Your task to perform on an android device: Go to network settings Image 0: 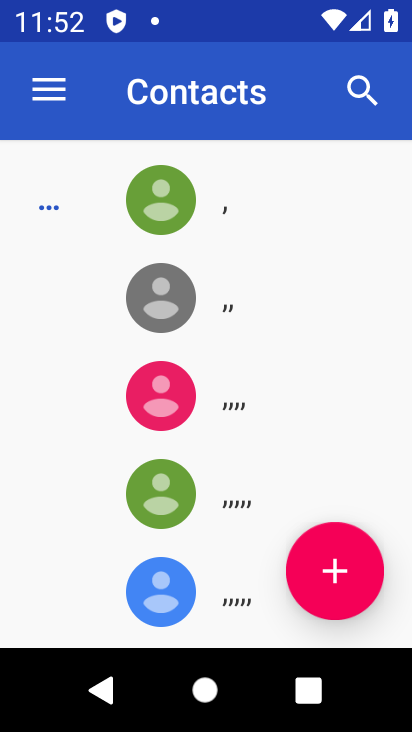
Step 0: press home button
Your task to perform on an android device: Go to network settings Image 1: 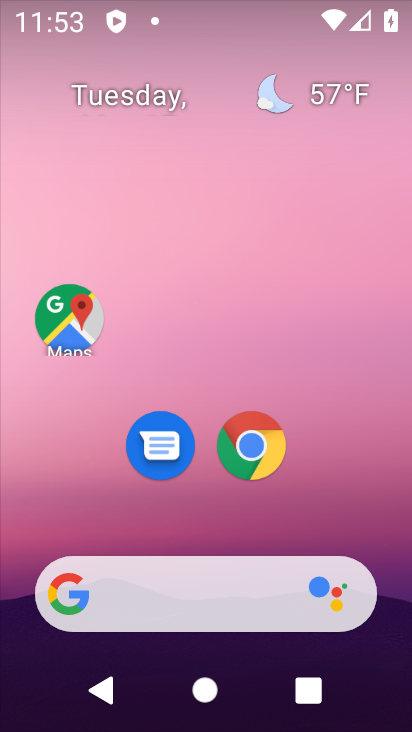
Step 1: drag from (355, 476) to (341, 112)
Your task to perform on an android device: Go to network settings Image 2: 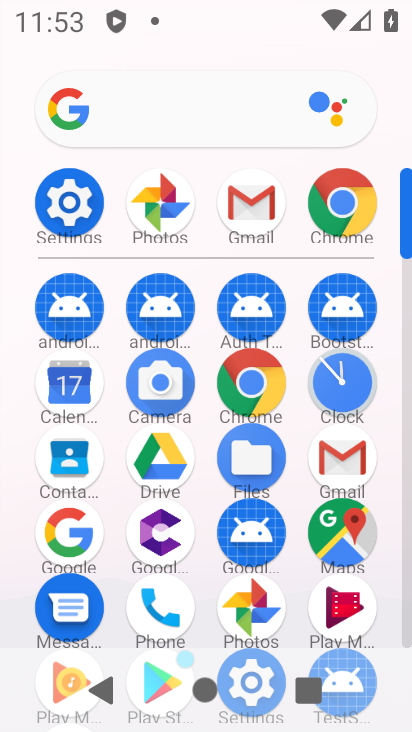
Step 2: click (48, 198)
Your task to perform on an android device: Go to network settings Image 3: 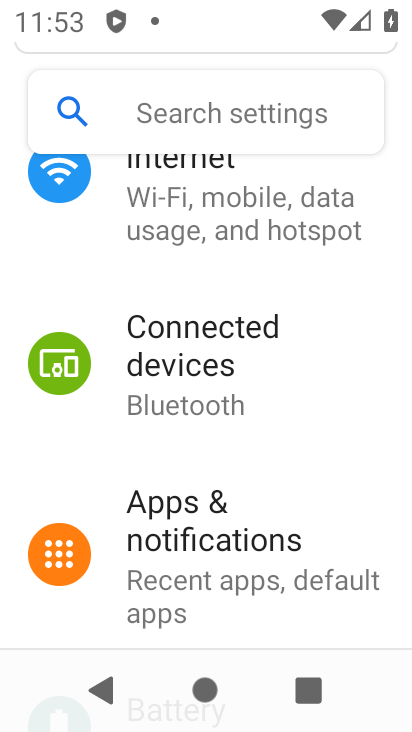
Step 3: drag from (344, 508) to (345, 296)
Your task to perform on an android device: Go to network settings Image 4: 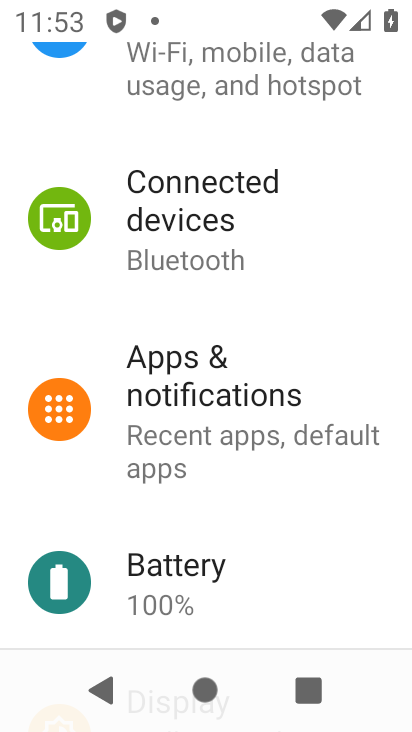
Step 4: drag from (343, 547) to (346, 285)
Your task to perform on an android device: Go to network settings Image 5: 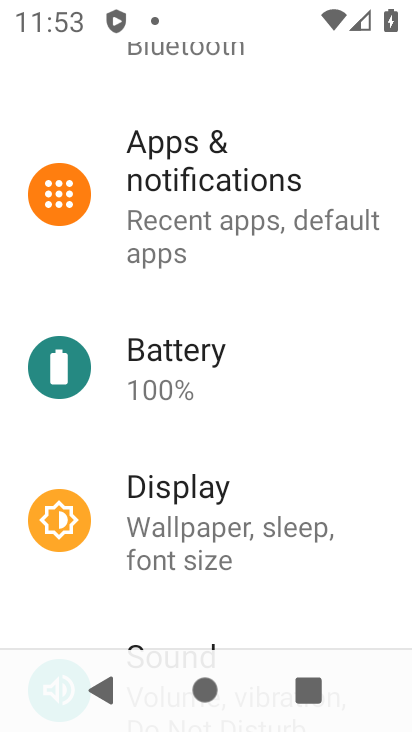
Step 5: drag from (335, 563) to (338, 284)
Your task to perform on an android device: Go to network settings Image 6: 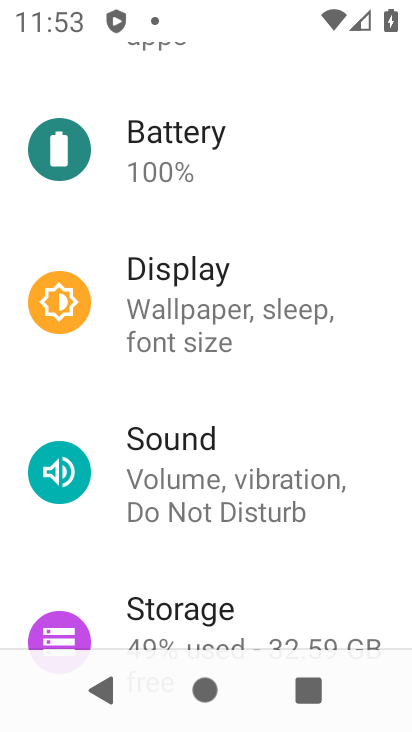
Step 6: drag from (336, 199) to (307, 393)
Your task to perform on an android device: Go to network settings Image 7: 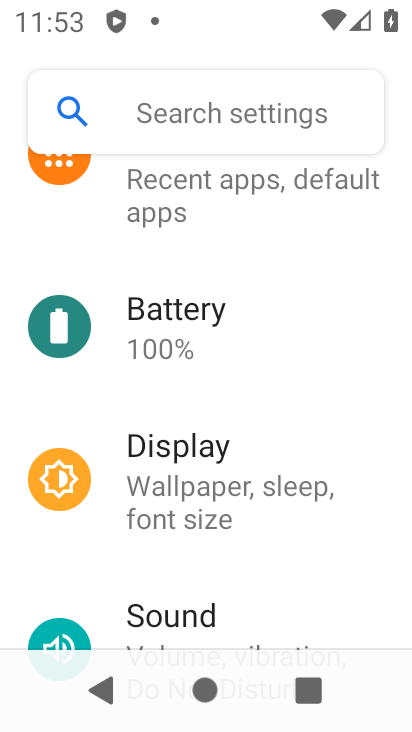
Step 7: drag from (323, 278) to (319, 531)
Your task to perform on an android device: Go to network settings Image 8: 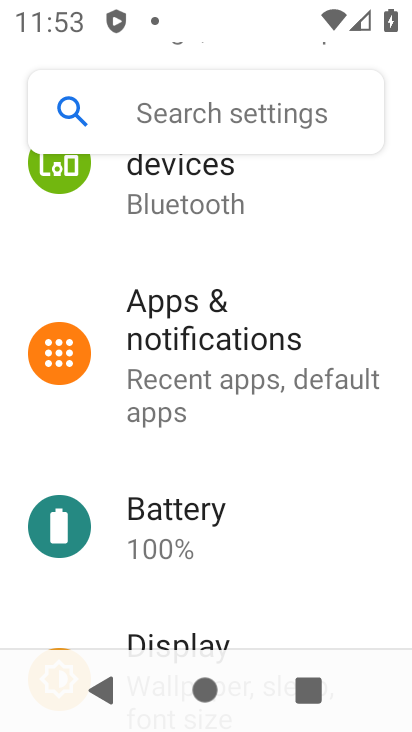
Step 8: drag from (320, 254) to (290, 501)
Your task to perform on an android device: Go to network settings Image 9: 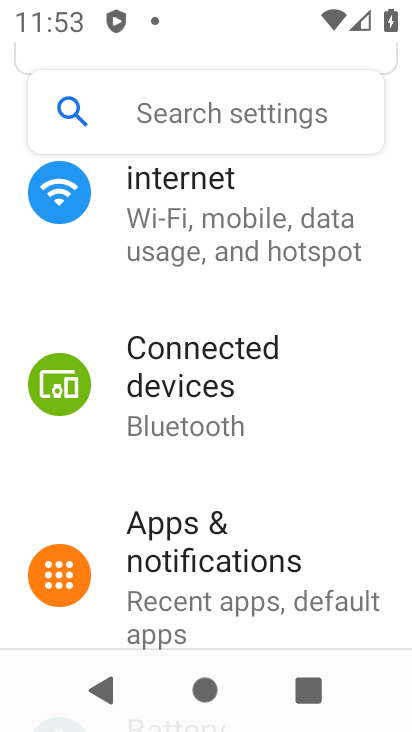
Step 9: drag from (330, 219) to (331, 439)
Your task to perform on an android device: Go to network settings Image 10: 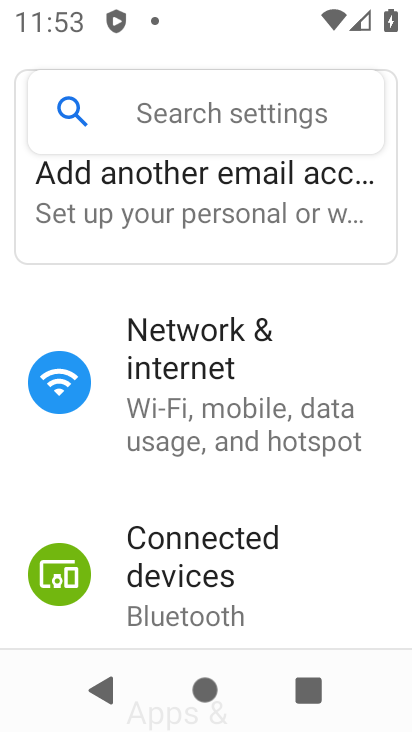
Step 10: click (228, 398)
Your task to perform on an android device: Go to network settings Image 11: 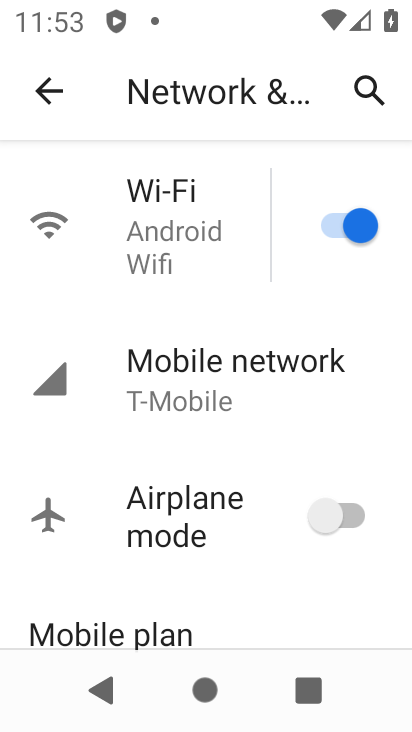
Step 11: task complete